Your task to perform on an android device: Clear all items from cart on costco.com. Add "dell alienware" to the cart on costco.com, then select checkout. Image 0: 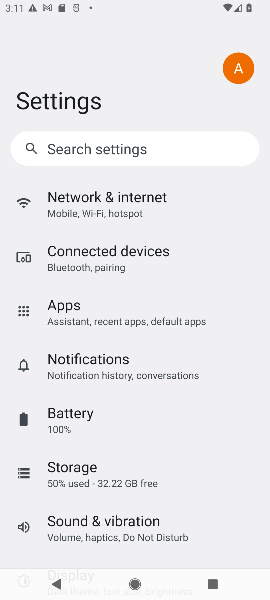
Step 0: press home button
Your task to perform on an android device: Clear all items from cart on costco.com. Add "dell alienware" to the cart on costco.com, then select checkout. Image 1: 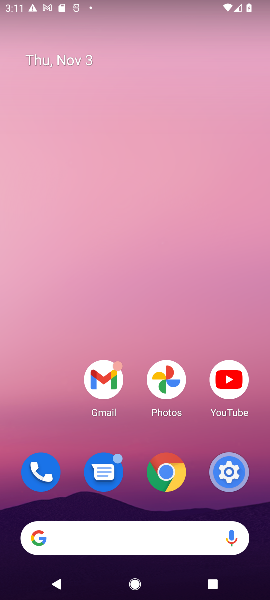
Step 1: click (158, 527)
Your task to perform on an android device: Clear all items from cart on costco.com. Add "dell alienware" to the cart on costco.com, then select checkout. Image 2: 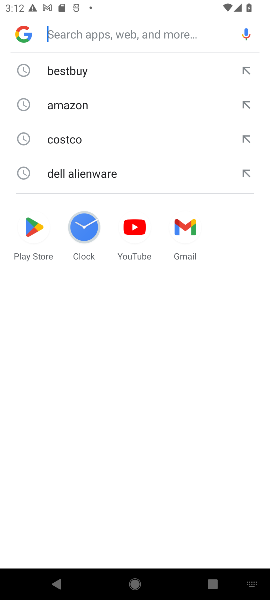
Step 2: click (154, 144)
Your task to perform on an android device: Clear all items from cart on costco.com. Add "dell alienware" to the cart on costco.com, then select checkout. Image 3: 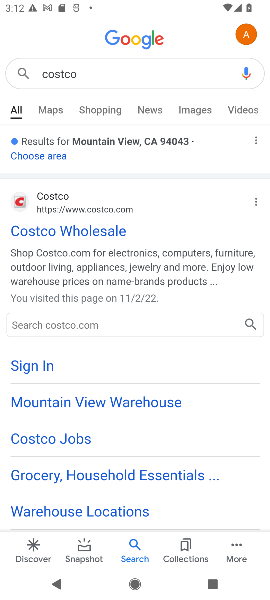
Step 3: click (93, 229)
Your task to perform on an android device: Clear all items from cart on costco.com. Add "dell alienware" to the cart on costco.com, then select checkout. Image 4: 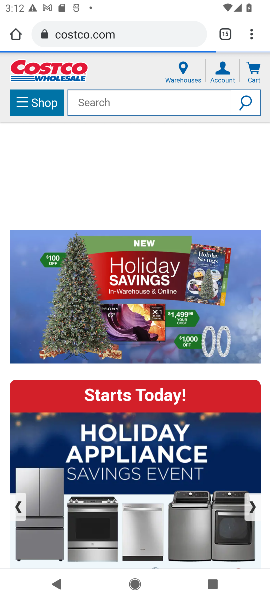
Step 4: click (127, 110)
Your task to perform on an android device: Clear all items from cart on costco.com. Add "dell alienware" to the cart on costco.com, then select checkout. Image 5: 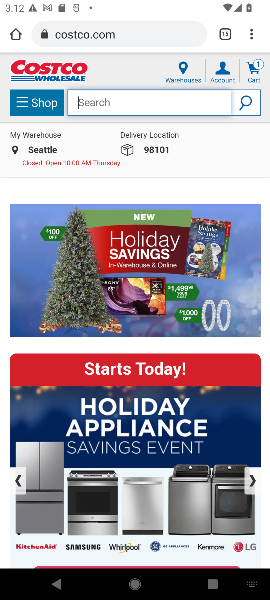
Step 5: type "dell alienware"
Your task to perform on an android device: Clear all items from cart on costco.com. Add "dell alienware" to the cart on costco.com, then select checkout. Image 6: 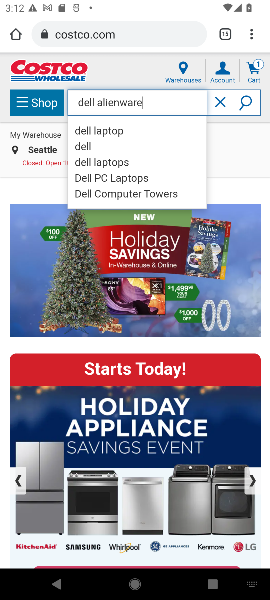
Step 6: click (256, 108)
Your task to perform on an android device: Clear all items from cart on costco.com. Add "dell alienware" to the cart on costco.com, then select checkout. Image 7: 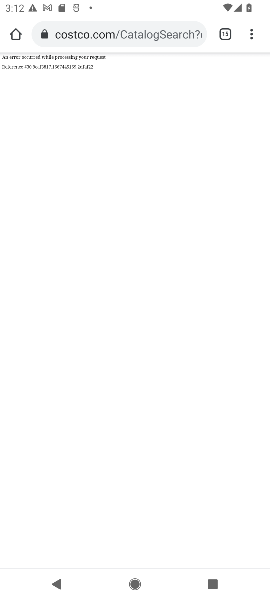
Step 7: task complete